Your task to perform on an android device: delete location history Image 0: 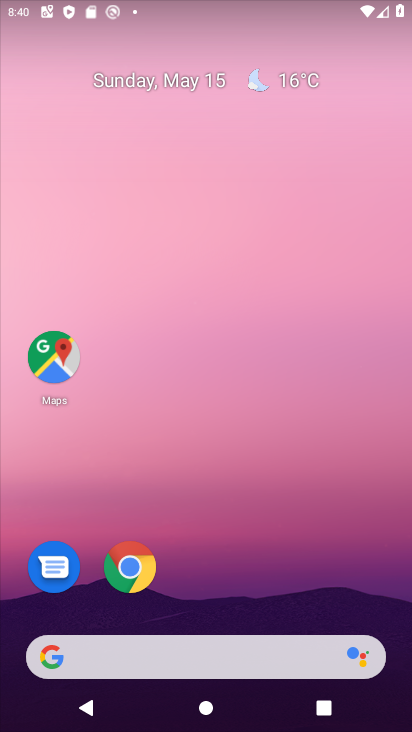
Step 0: drag from (195, 634) to (200, 78)
Your task to perform on an android device: delete location history Image 1: 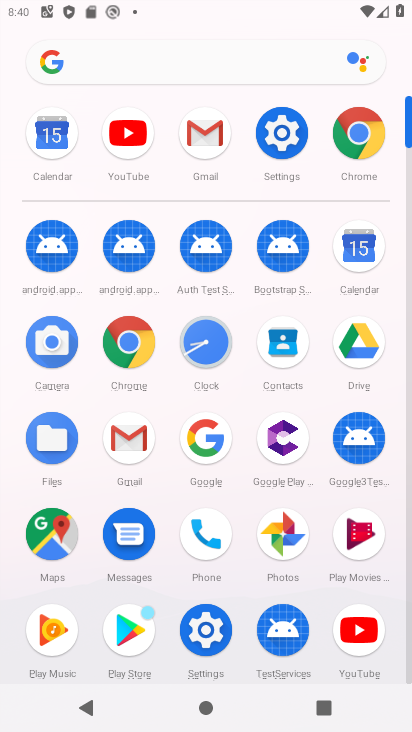
Step 1: click (41, 538)
Your task to perform on an android device: delete location history Image 2: 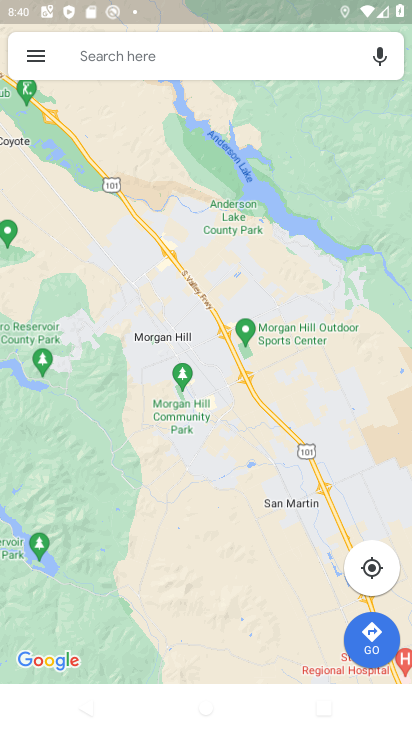
Step 2: click (40, 64)
Your task to perform on an android device: delete location history Image 3: 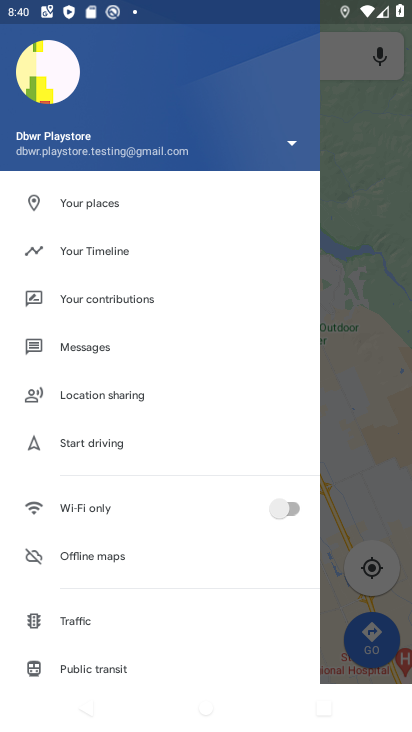
Step 3: click (94, 252)
Your task to perform on an android device: delete location history Image 4: 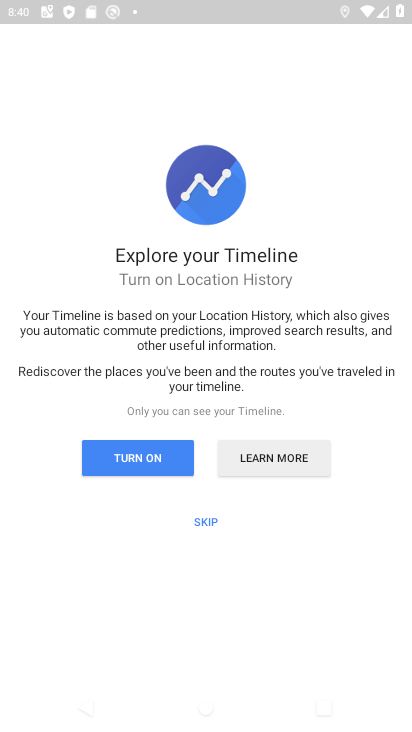
Step 4: click (147, 471)
Your task to perform on an android device: delete location history Image 5: 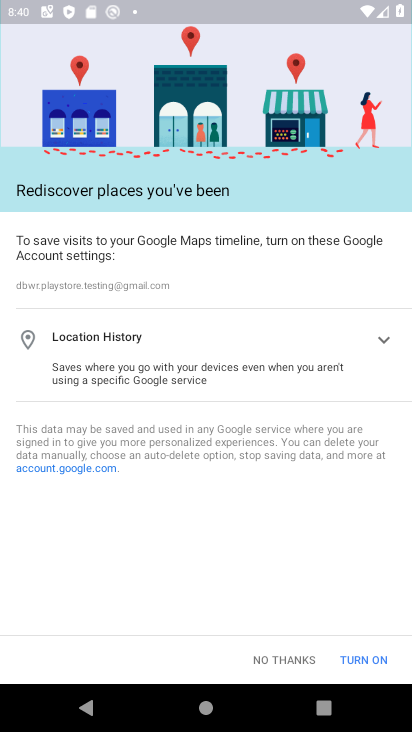
Step 5: click (375, 671)
Your task to perform on an android device: delete location history Image 6: 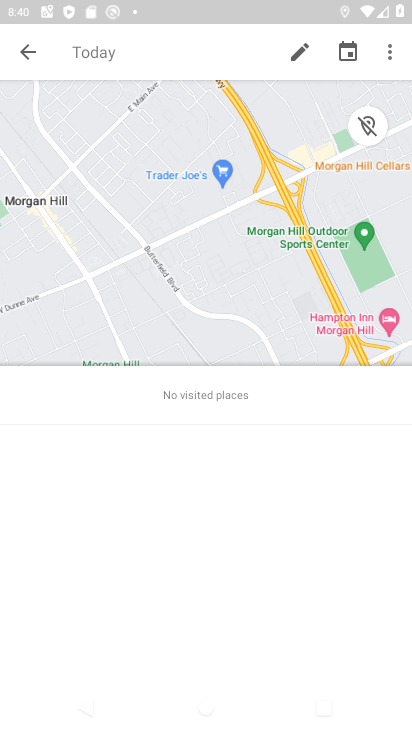
Step 6: click (392, 59)
Your task to perform on an android device: delete location history Image 7: 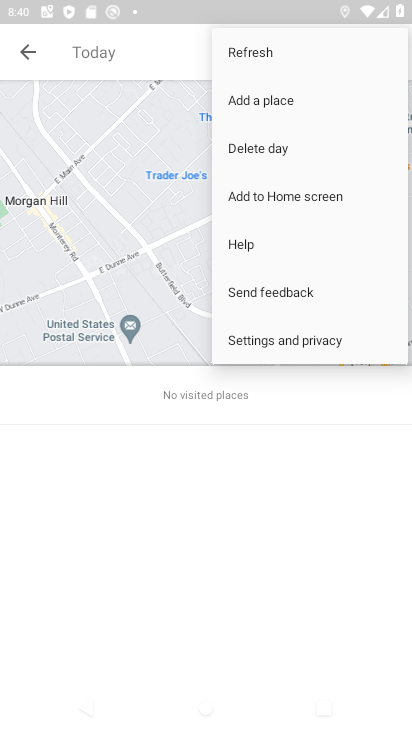
Step 7: click (267, 346)
Your task to perform on an android device: delete location history Image 8: 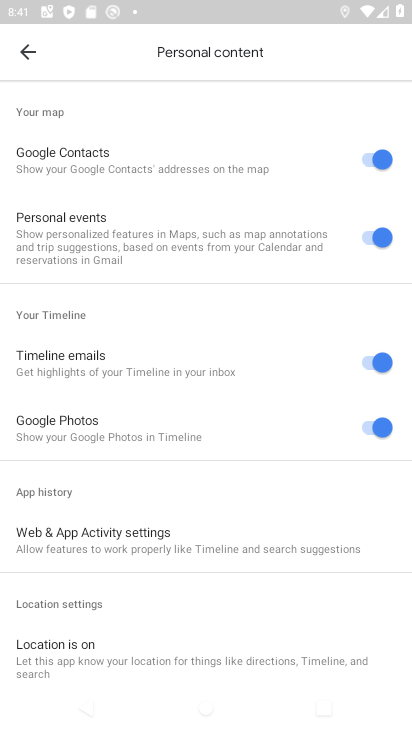
Step 8: drag from (166, 626) to (188, 64)
Your task to perform on an android device: delete location history Image 9: 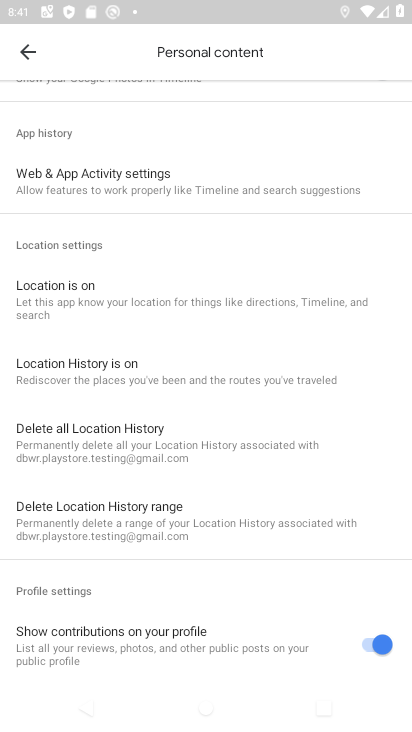
Step 9: click (134, 438)
Your task to perform on an android device: delete location history Image 10: 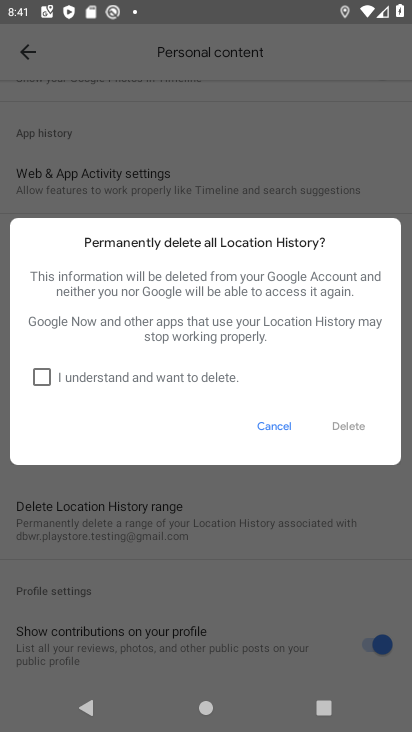
Step 10: click (99, 386)
Your task to perform on an android device: delete location history Image 11: 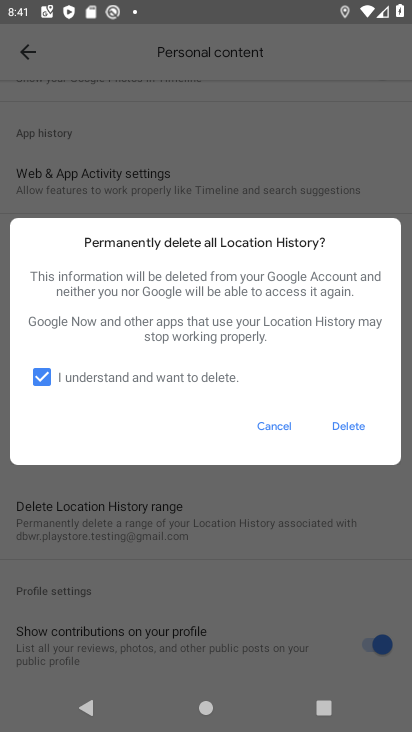
Step 11: click (349, 434)
Your task to perform on an android device: delete location history Image 12: 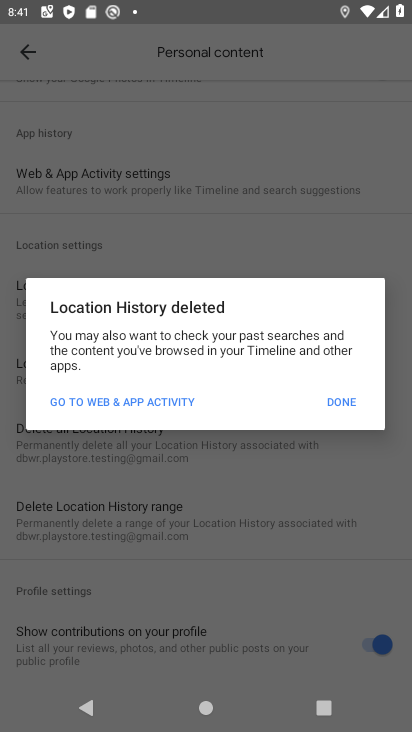
Step 12: click (343, 406)
Your task to perform on an android device: delete location history Image 13: 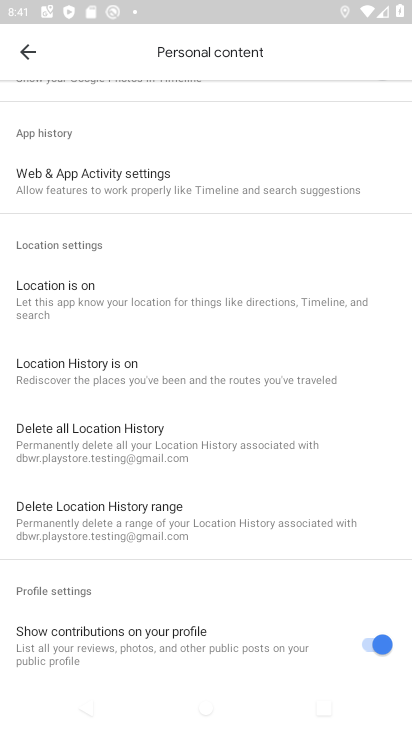
Step 13: task complete